Your task to perform on an android device: find which apps use the phone's location Image 0: 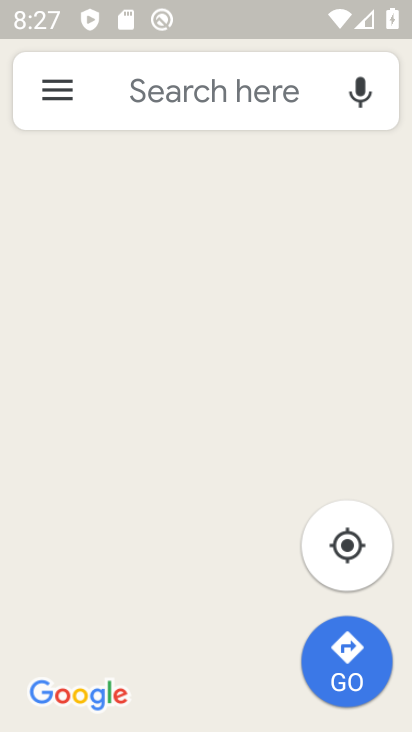
Step 0: press home button
Your task to perform on an android device: find which apps use the phone's location Image 1: 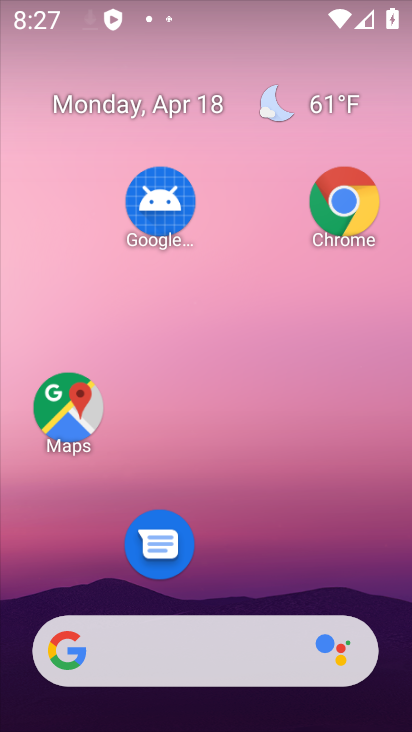
Step 1: drag from (214, 606) to (406, 83)
Your task to perform on an android device: find which apps use the phone's location Image 2: 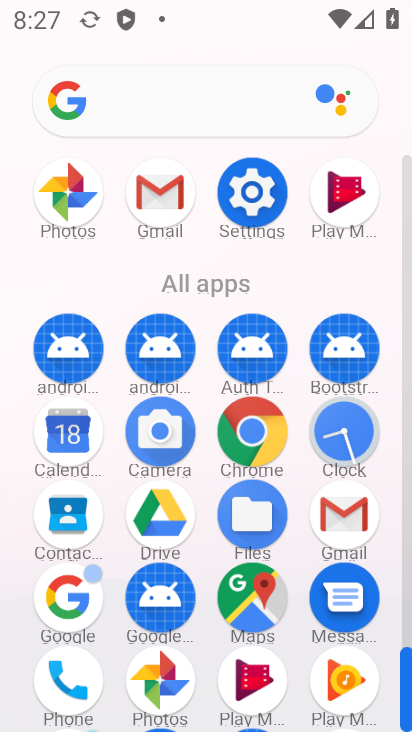
Step 2: click (244, 210)
Your task to perform on an android device: find which apps use the phone's location Image 3: 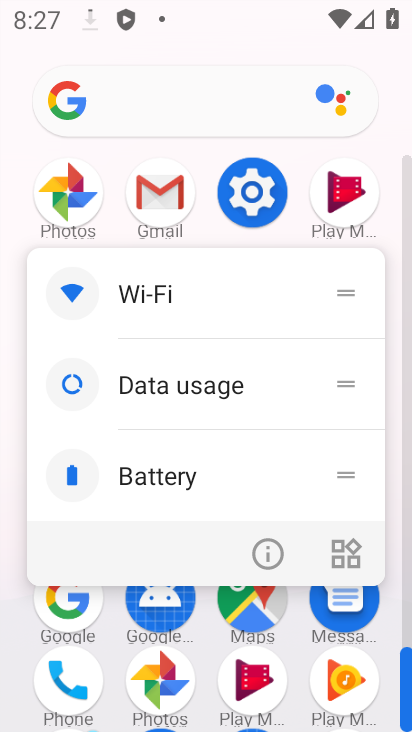
Step 3: click (264, 187)
Your task to perform on an android device: find which apps use the phone's location Image 4: 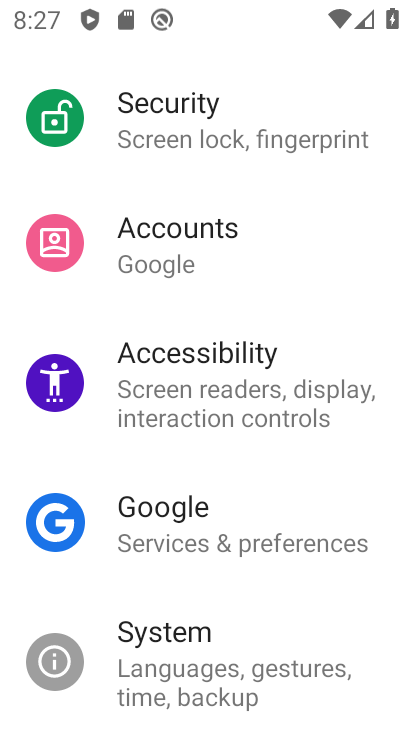
Step 4: drag from (273, 196) to (237, 731)
Your task to perform on an android device: find which apps use the phone's location Image 5: 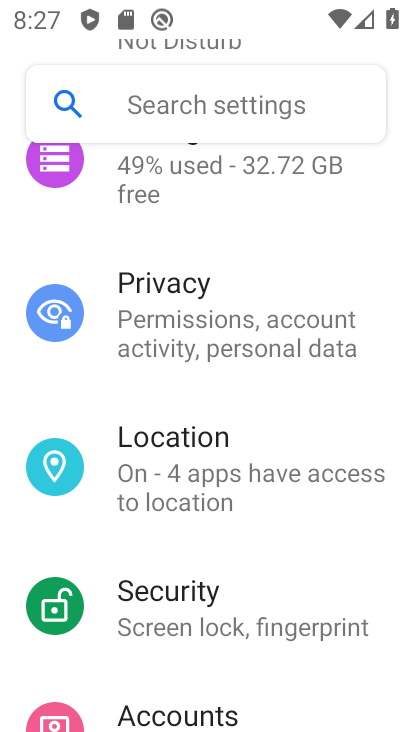
Step 5: click (166, 495)
Your task to perform on an android device: find which apps use the phone's location Image 6: 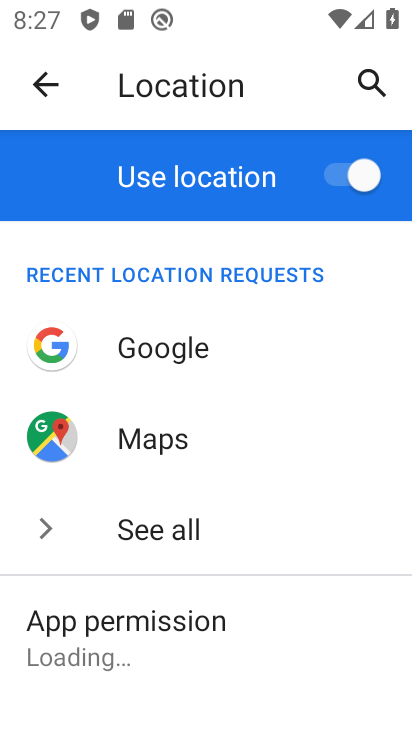
Step 6: drag from (212, 569) to (199, 152)
Your task to perform on an android device: find which apps use the phone's location Image 7: 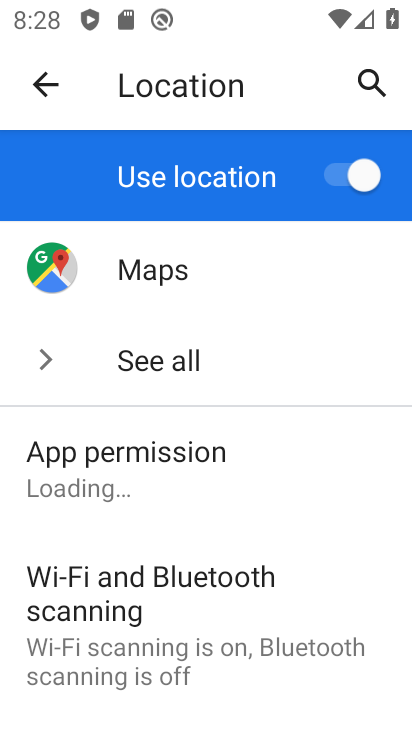
Step 7: click (162, 442)
Your task to perform on an android device: find which apps use the phone's location Image 8: 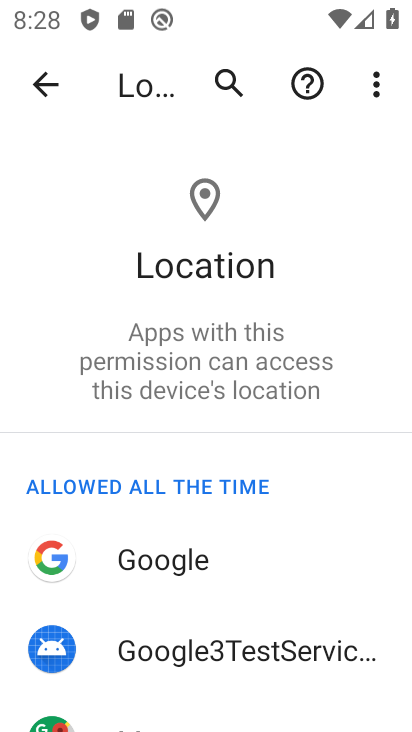
Step 8: task complete